Your task to perform on an android device: turn on airplane mode Image 0: 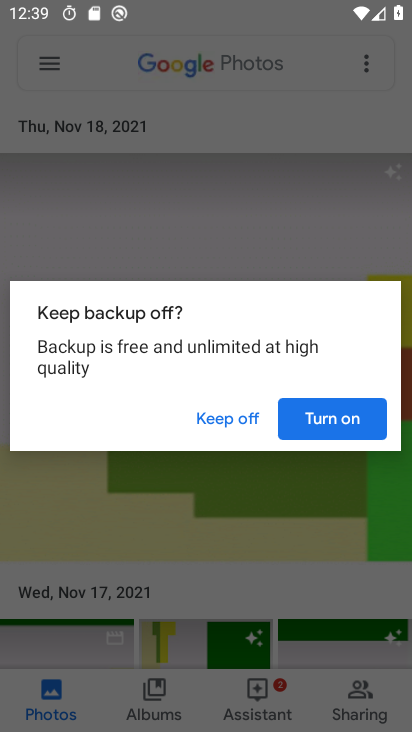
Step 0: drag from (374, 75) to (280, 558)
Your task to perform on an android device: turn on airplane mode Image 1: 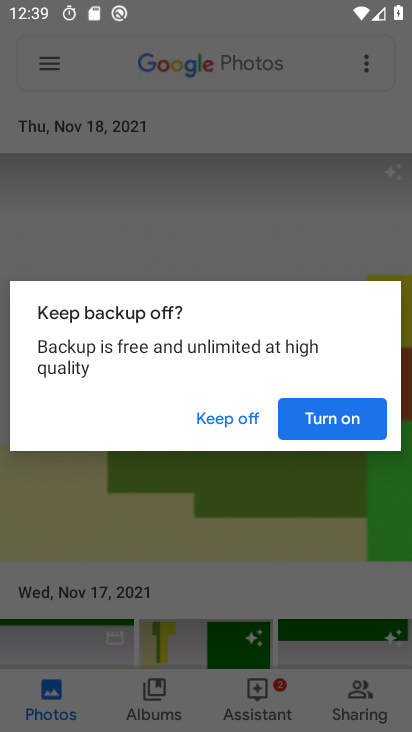
Step 1: press home button
Your task to perform on an android device: turn on airplane mode Image 2: 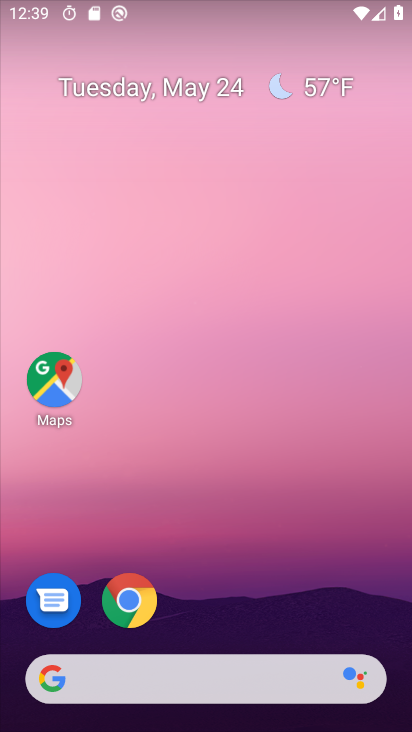
Step 2: drag from (346, 30) to (290, 588)
Your task to perform on an android device: turn on airplane mode Image 3: 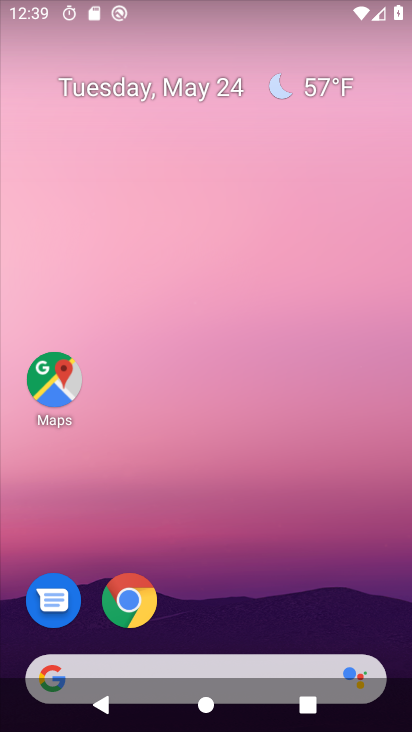
Step 3: drag from (223, 4) to (201, 487)
Your task to perform on an android device: turn on airplane mode Image 4: 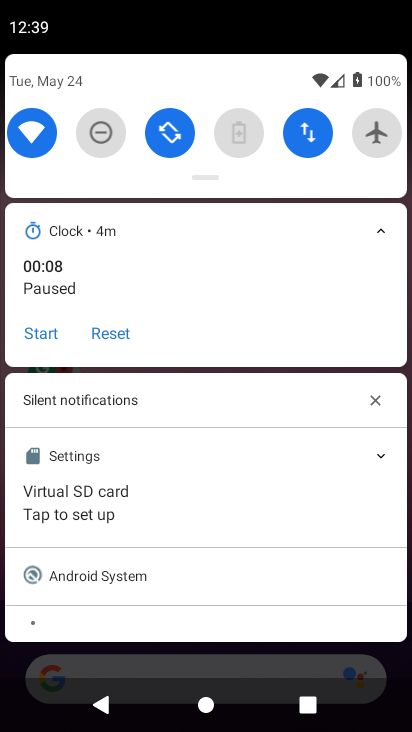
Step 4: click (371, 122)
Your task to perform on an android device: turn on airplane mode Image 5: 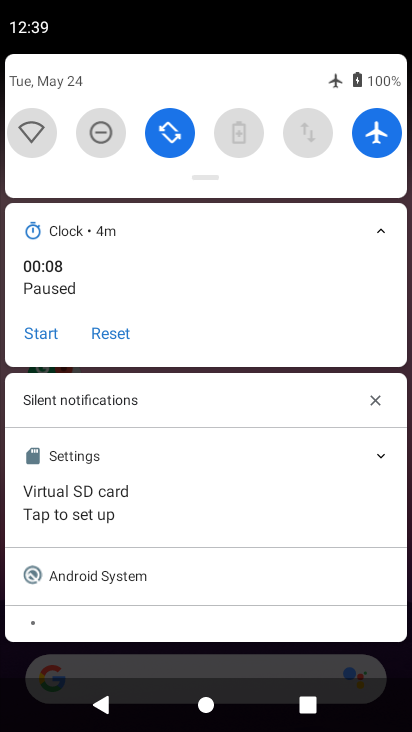
Step 5: task complete